Your task to perform on an android device: Find coffee shops on Maps Image 0: 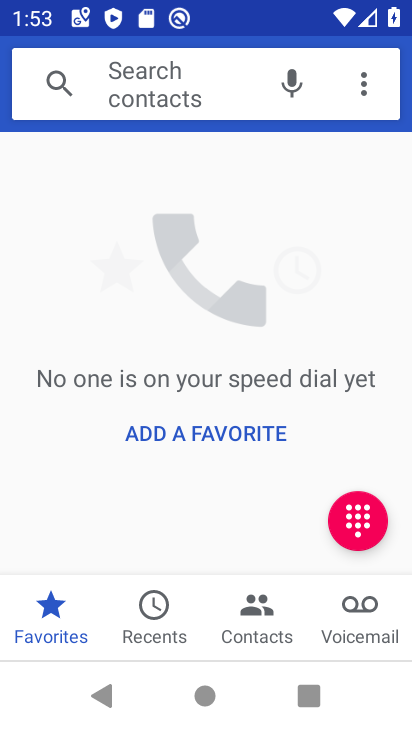
Step 0: press home button
Your task to perform on an android device: Find coffee shops on Maps Image 1: 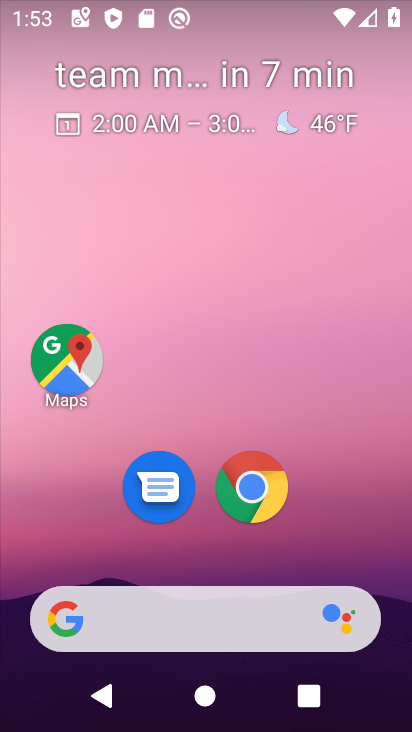
Step 1: click (78, 362)
Your task to perform on an android device: Find coffee shops on Maps Image 2: 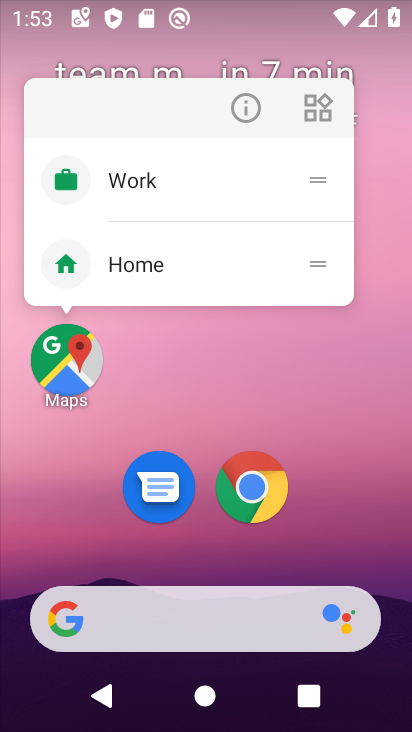
Step 2: click (70, 358)
Your task to perform on an android device: Find coffee shops on Maps Image 3: 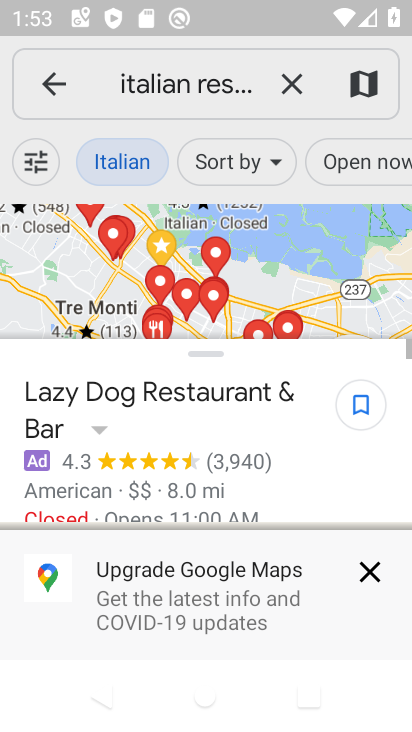
Step 3: click (186, 65)
Your task to perform on an android device: Find coffee shops on Maps Image 4: 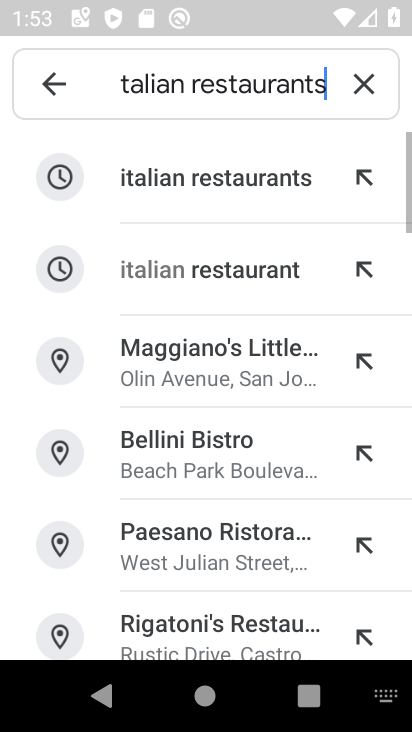
Step 4: click (362, 78)
Your task to perform on an android device: Find coffee shops on Maps Image 5: 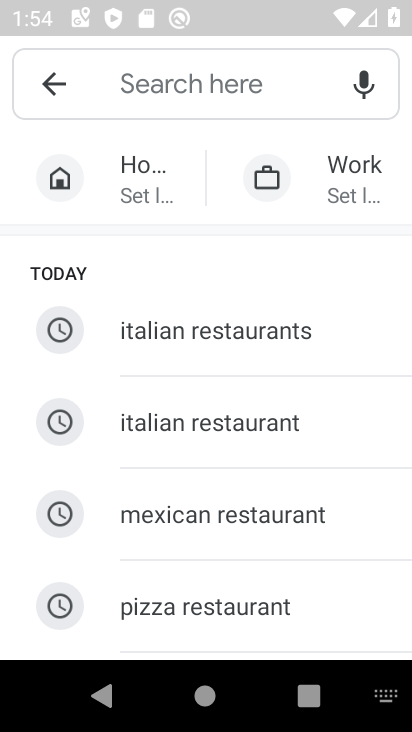
Step 5: type "coffee shops"
Your task to perform on an android device: Find coffee shops on Maps Image 6: 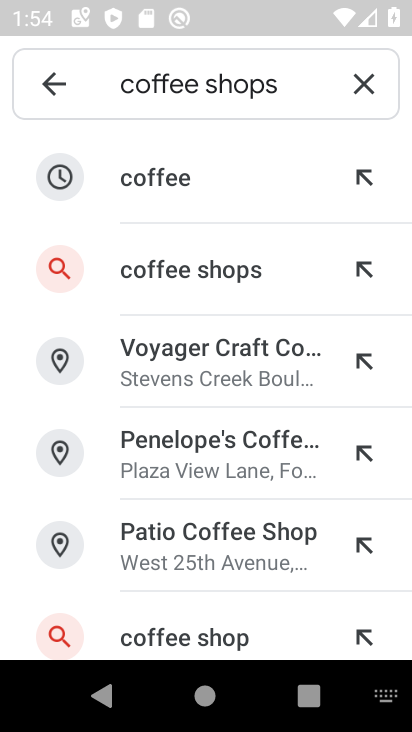
Step 6: click (159, 282)
Your task to perform on an android device: Find coffee shops on Maps Image 7: 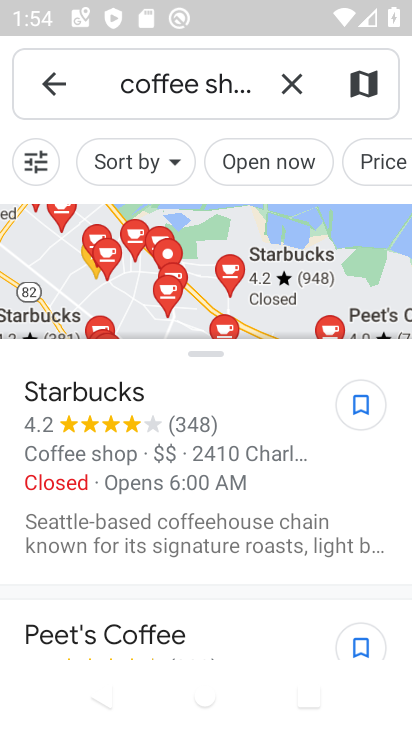
Step 7: task complete